Your task to perform on an android device: allow notifications from all sites in the chrome app Image 0: 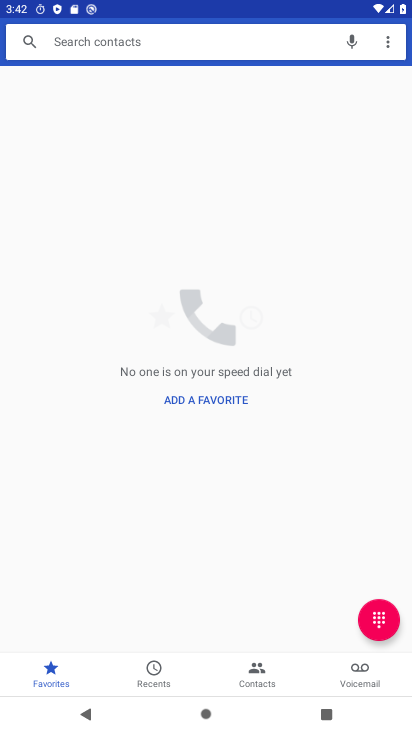
Step 0: press home button
Your task to perform on an android device: allow notifications from all sites in the chrome app Image 1: 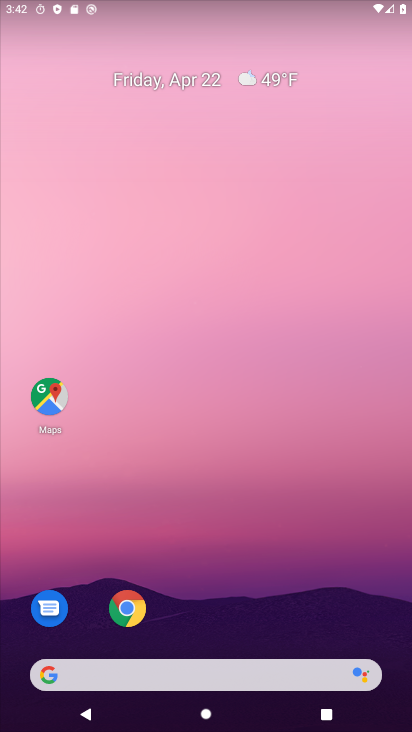
Step 1: click (124, 610)
Your task to perform on an android device: allow notifications from all sites in the chrome app Image 2: 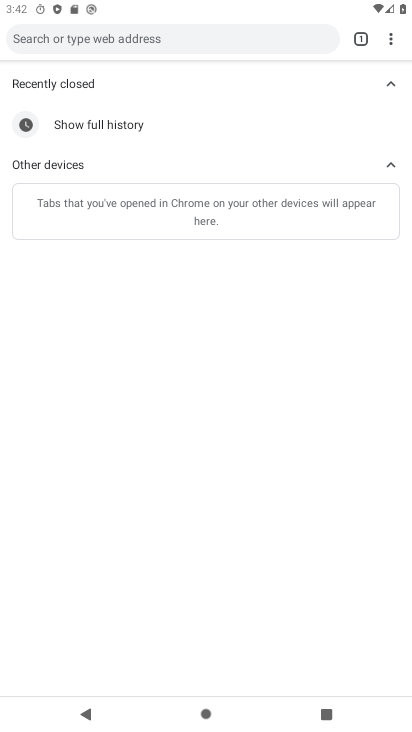
Step 2: click (388, 40)
Your task to perform on an android device: allow notifications from all sites in the chrome app Image 3: 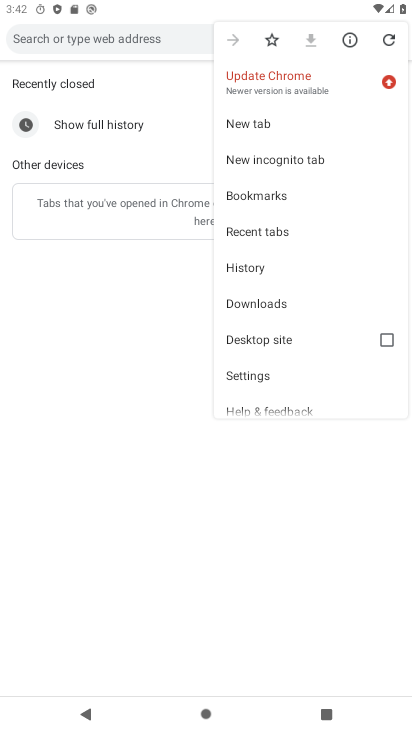
Step 3: click (259, 380)
Your task to perform on an android device: allow notifications from all sites in the chrome app Image 4: 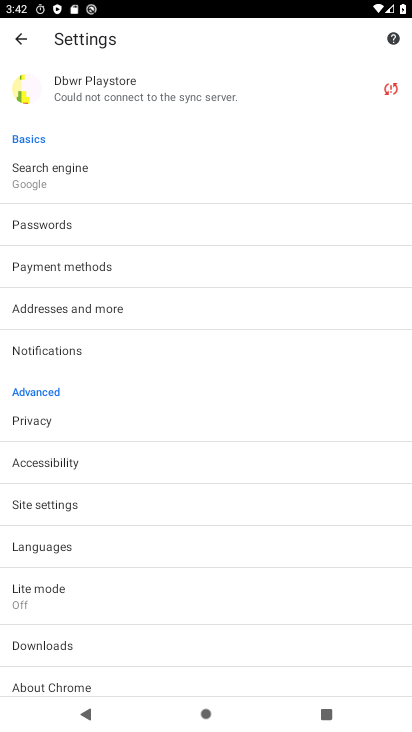
Step 4: click (54, 344)
Your task to perform on an android device: allow notifications from all sites in the chrome app Image 5: 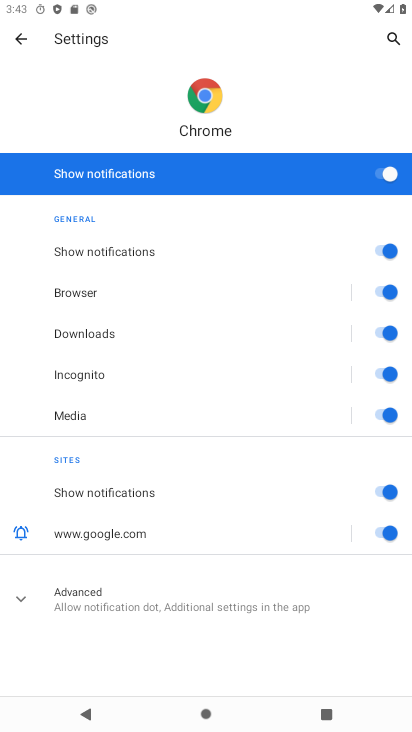
Step 5: task complete